Your task to perform on an android device: Open privacy settings Image 0: 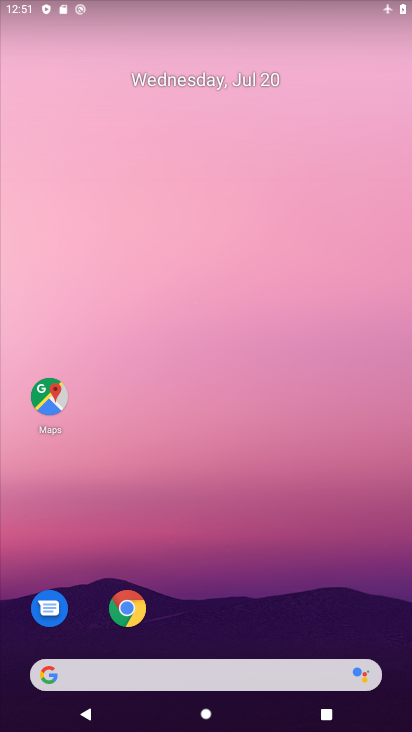
Step 0: drag from (221, 398) to (221, 56)
Your task to perform on an android device: Open privacy settings Image 1: 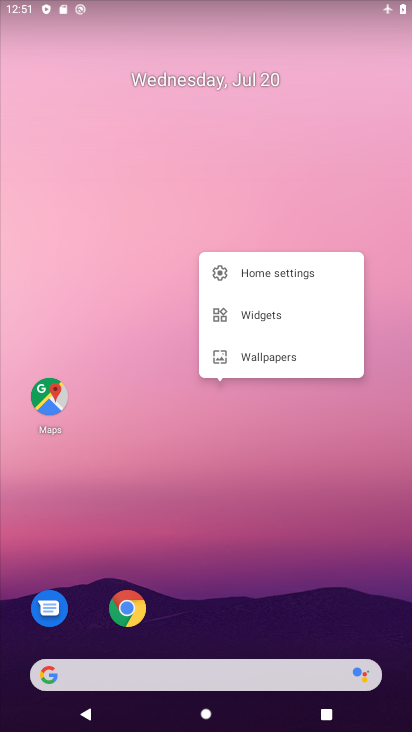
Step 1: drag from (177, 652) to (184, 117)
Your task to perform on an android device: Open privacy settings Image 2: 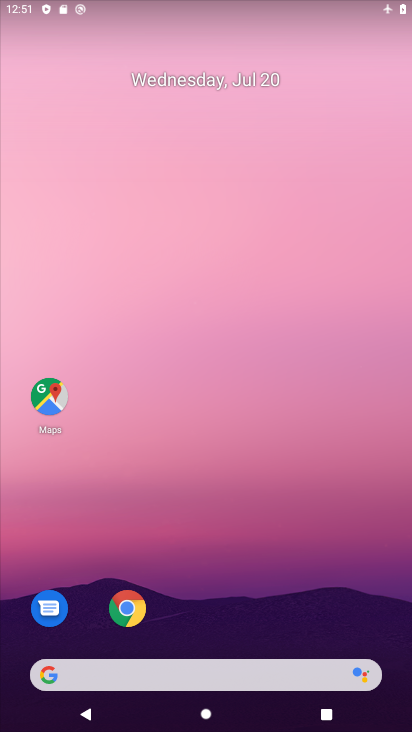
Step 2: drag from (210, 654) to (145, 210)
Your task to perform on an android device: Open privacy settings Image 3: 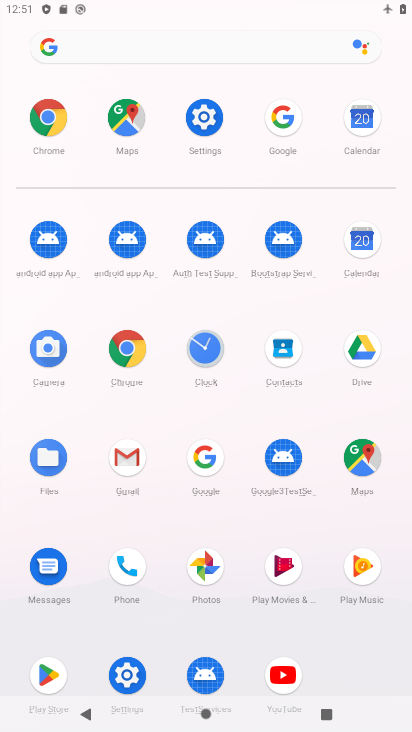
Step 3: click (201, 122)
Your task to perform on an android device: Open privacy settings Image 4: 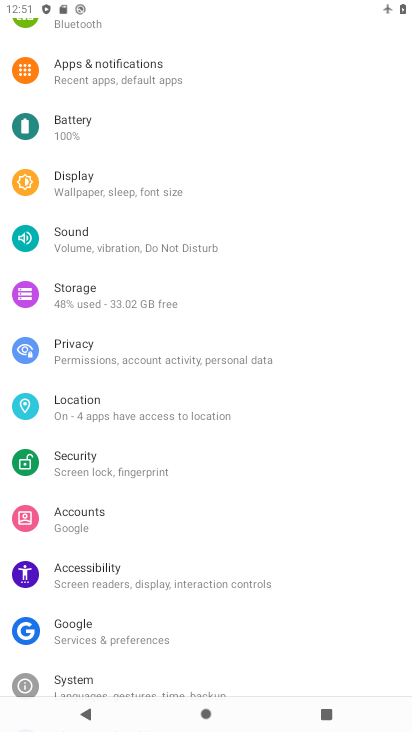
Step 4: click (90, 341)
Your task to perform on an android device: Open privacy settings Image 5: 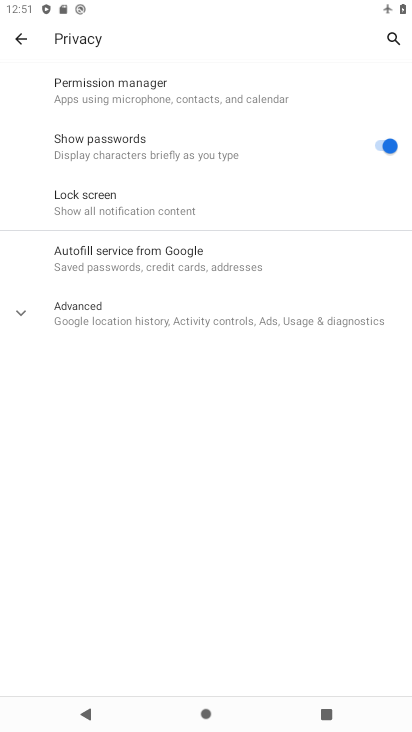
Step 5: click (99, 324)
Your task to perform on an android device: Open privacy settings Image 6: 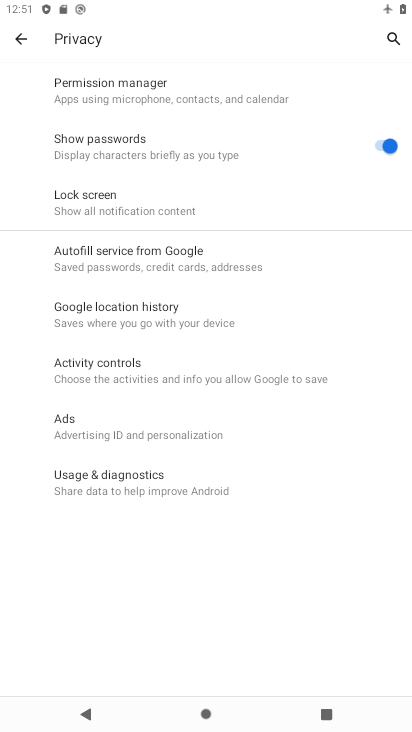
Step 6: task complete